Your task to perform on an android device: Go to Google Image 0: 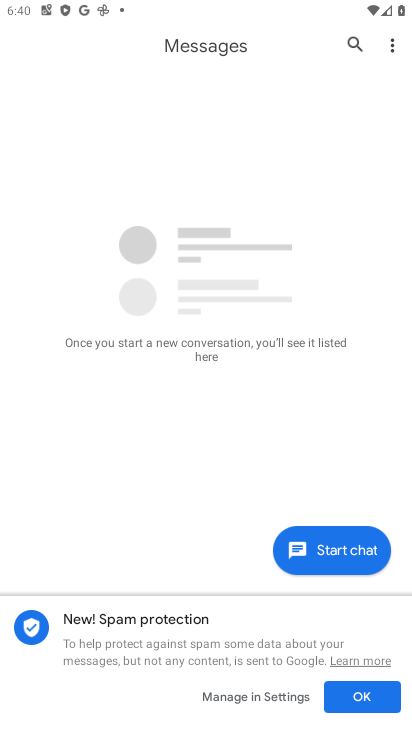
Step 0: press back button
Your task to perform on an android device: Go to Google Image 1: 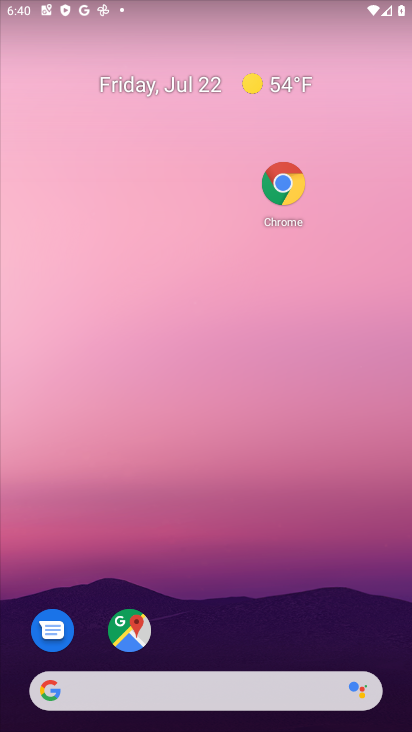
Step 1: click (126, 681)
Your task to perform on an android device: Go to Google Image 2: 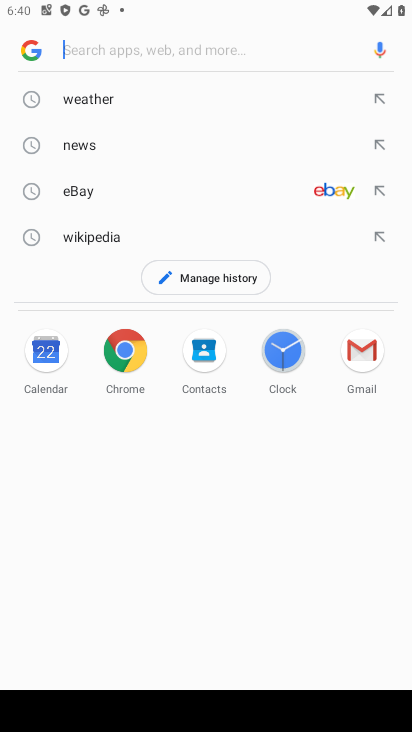
Step 2: task complete